Your task to perform on an android device: turn off priority inbox in the gmail app Image 0: 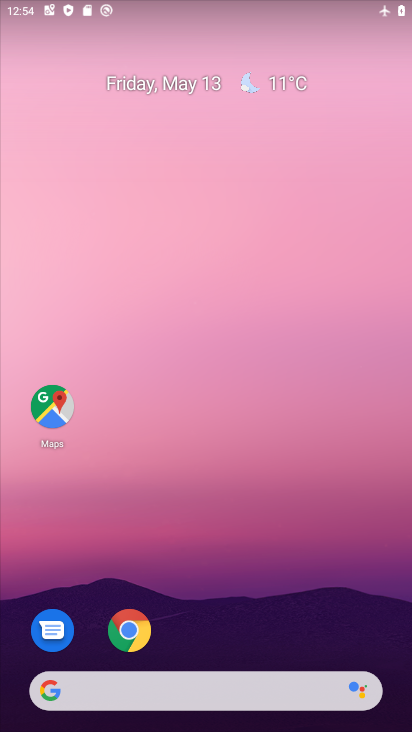
Step 0: drag from (319, 626) to (313, 3)
Your task to perform on an android device: turn off priority inbox in the gmail app Image 1: 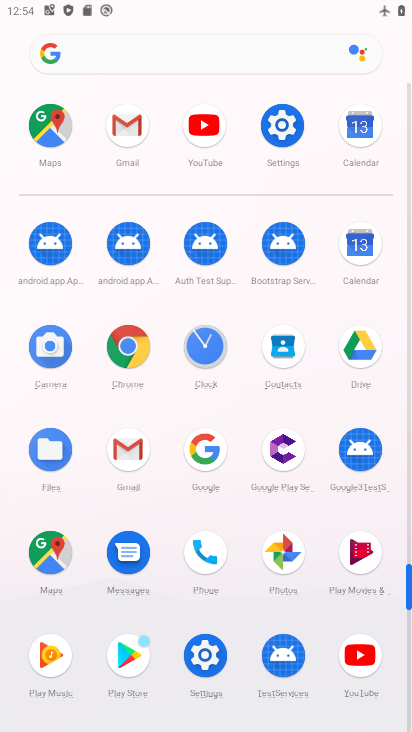
Step 1: click (122, 129)
Your task to perform on an android device: turn off priority inbox in the gmail app Image 2: 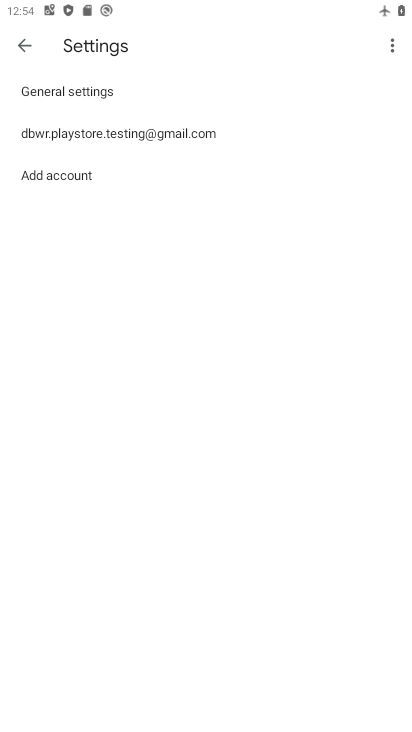
Step 2: click (52, 140)
Your task to perform on an android device: turn off priority inbox in the gmail app Image 3: 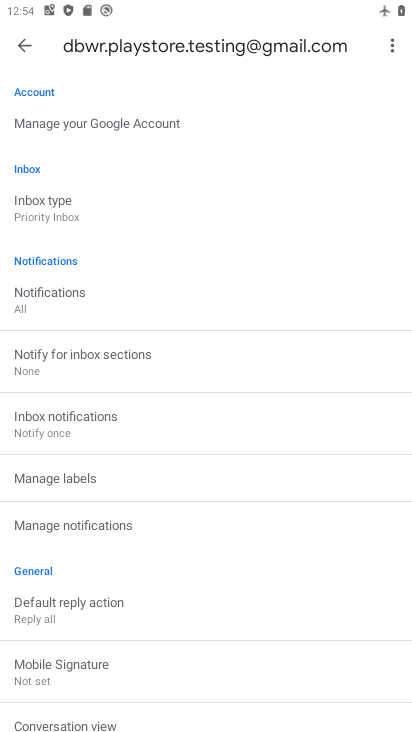
Step 3: click (47, 216)
Your task to perform on an android device: turn off priority inbox in the gmail app Image 4: 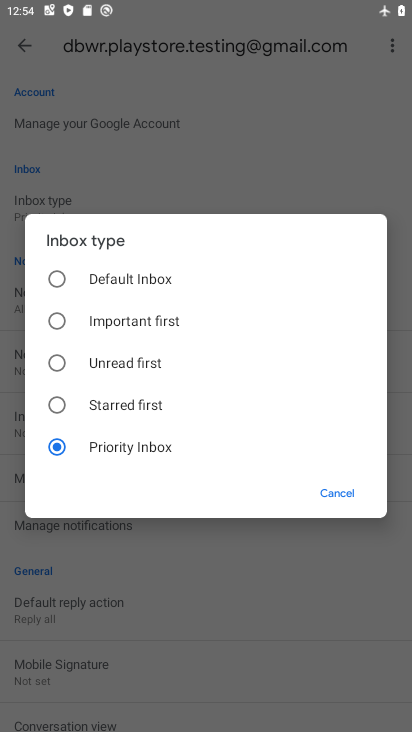
Step 4: click (55, 291)
Your task to perform on an android device: turn off priority inbox in the gmail app Image 5: 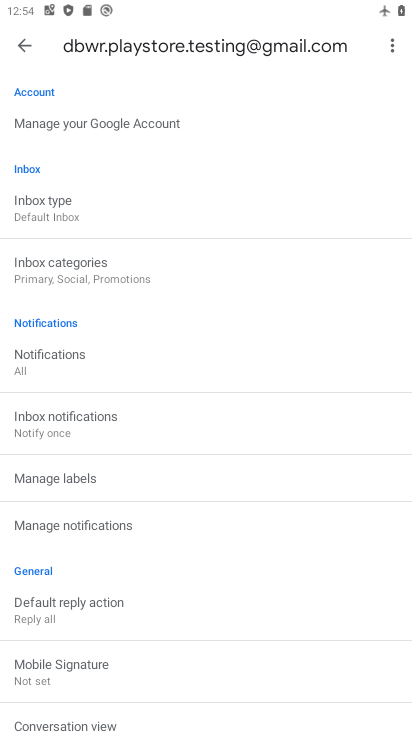
Step 5: task complete